Your task to perform on an android device: What is the speed of a jet? Image 0: 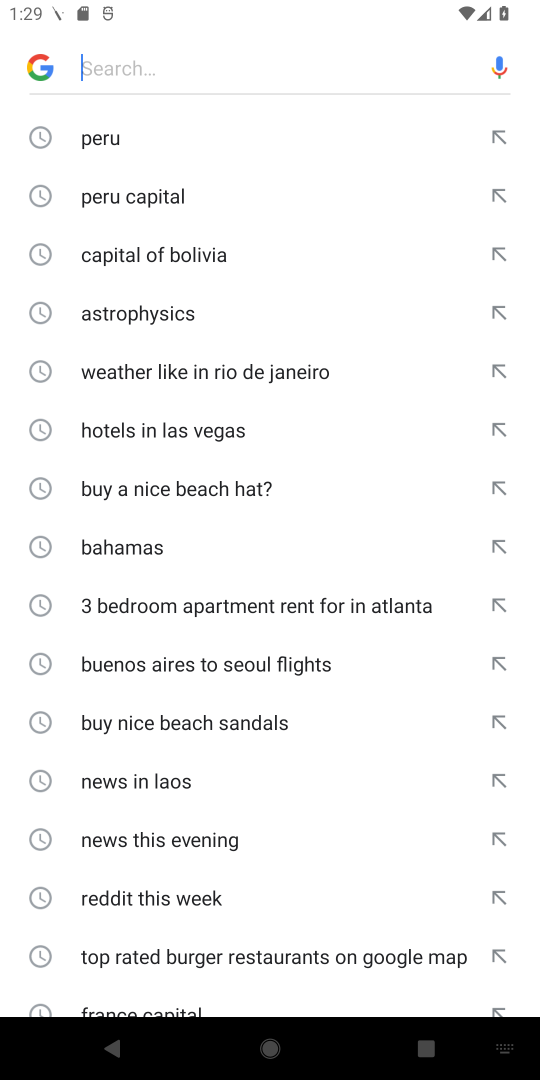
Step 0: press home button
Your task to perform on an android device: What is the speed of a jet? Image 1: 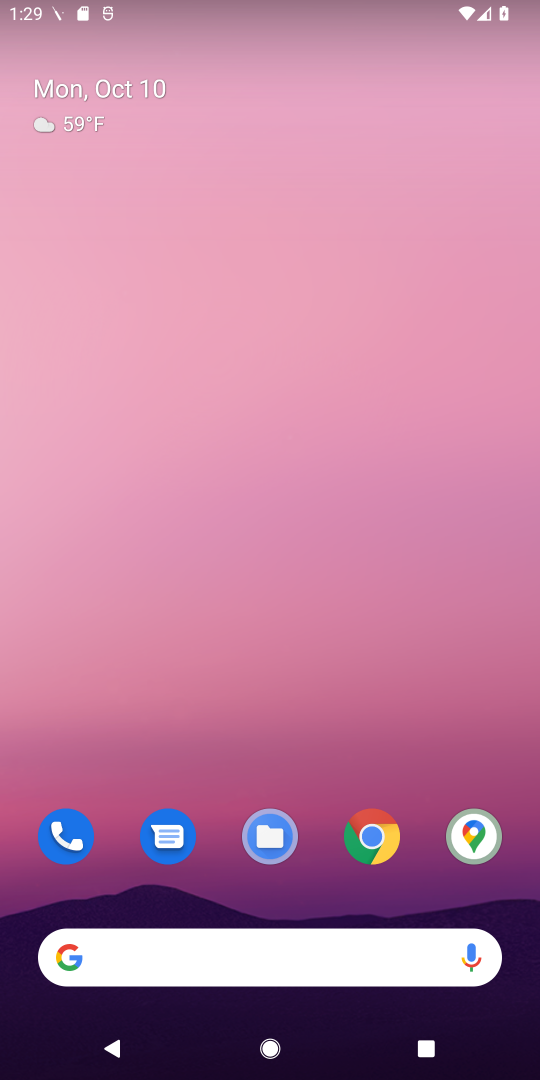
Step 1: click (375, 853)
Your task to perform on an android device: What is the speed of a jet? Image 2: 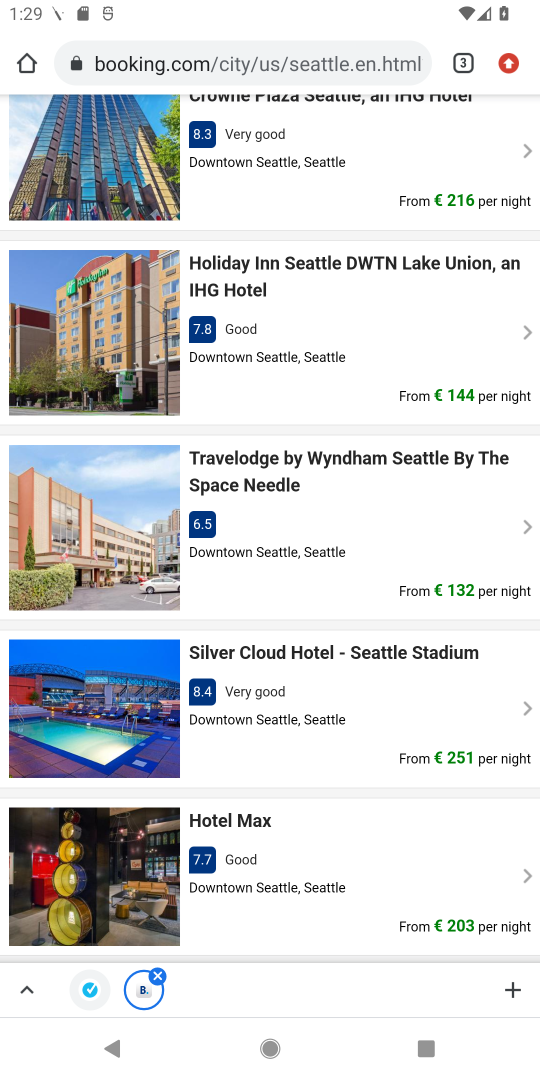
Step 2: click (249, 48)
Your task to perform on an android device: What is the speed of a jet? Image 3: 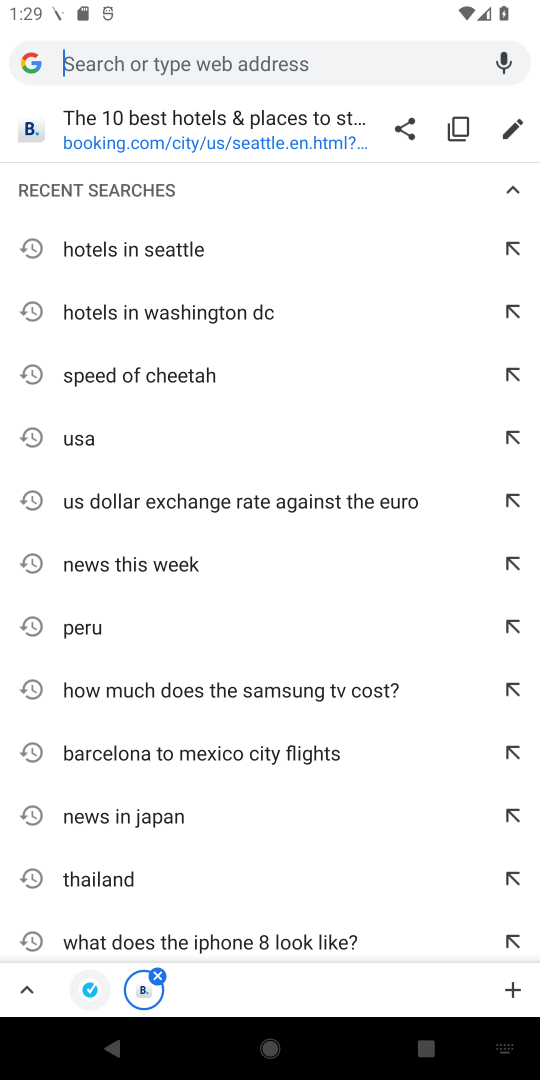
Step 3: type "what is the speed of a jet?"
Your task to perform on an android device: What is the speed of a jet? Image 4: 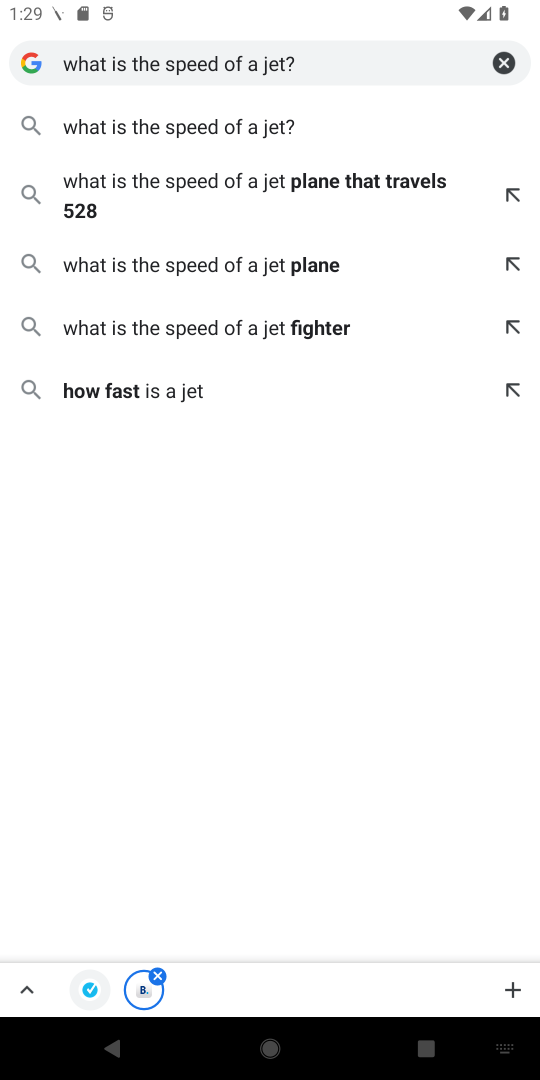
Step 4: click (291, 115)
Your task to perform on an android device: What is the speed of a jet? Image 5: 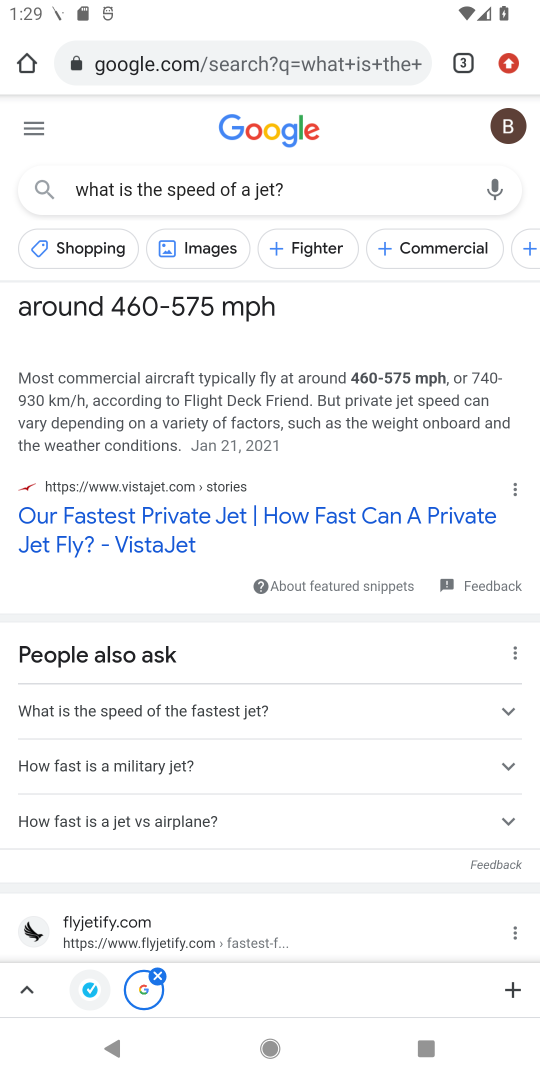
Step 5: task complete